Your task to perform on an android device: turn on the 12-hour format for clock Image 0: 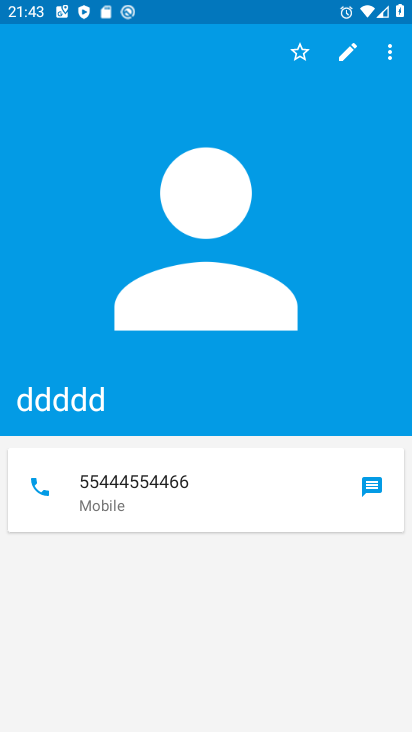
Step 0: press home button
Your task to perform on an android device: turn on the 12-hour format for clock Image 1: 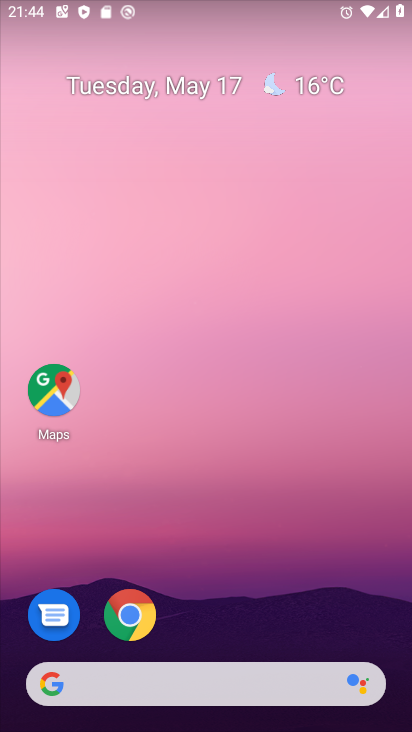
Step 1: drag from (247, 600) to (236, 23)
Your task to perform on an android device: turn on the 12-hour format for clock Image 2: 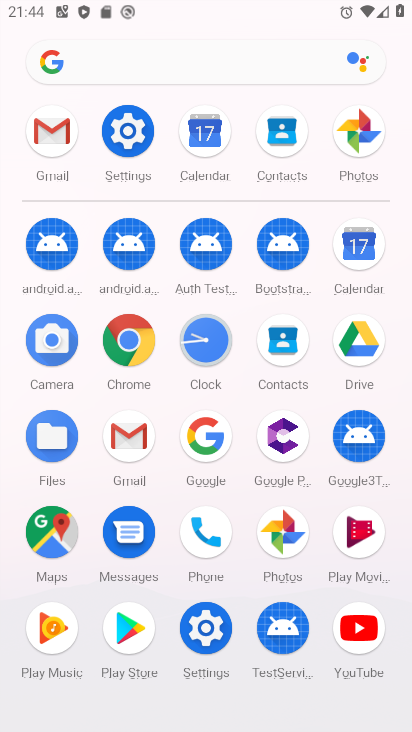
Step 2: click (216, 361)
Your task to perform on an android device: turn on the 12-hour format for clock Image 3: 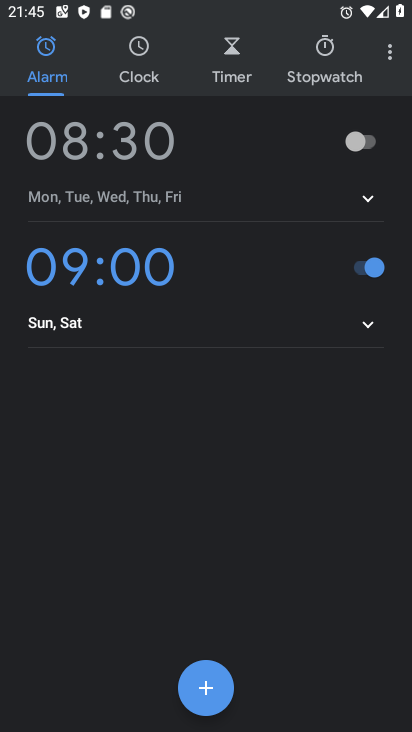
Step 3: click (388, 45)
Your task to perform on an android device: turn on the 12-hour format for clock Image 4: 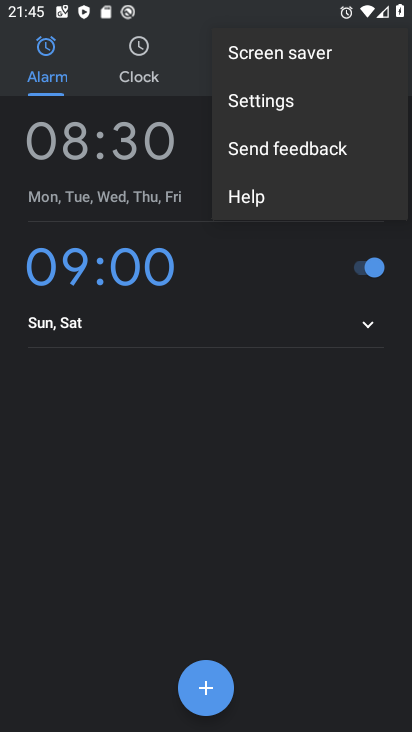
Step 4: click (257, 88)
Your task to perform on an android device: turn on the 12-hour format for clock Image 5: 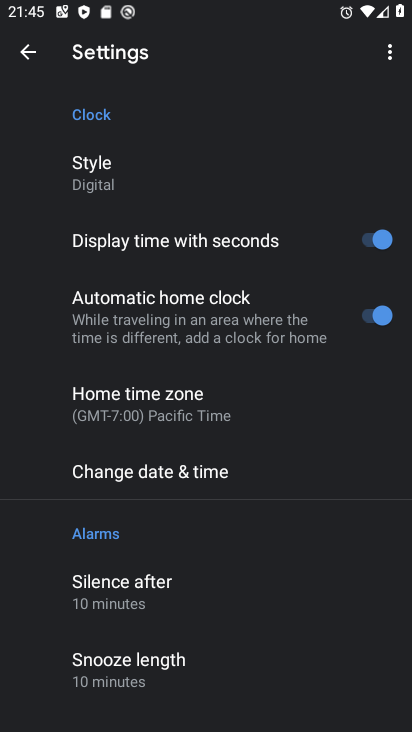
Step 5: click (212, 472)
Your task to perform on an android device: turn on the 12-hour format for clock Image 6: 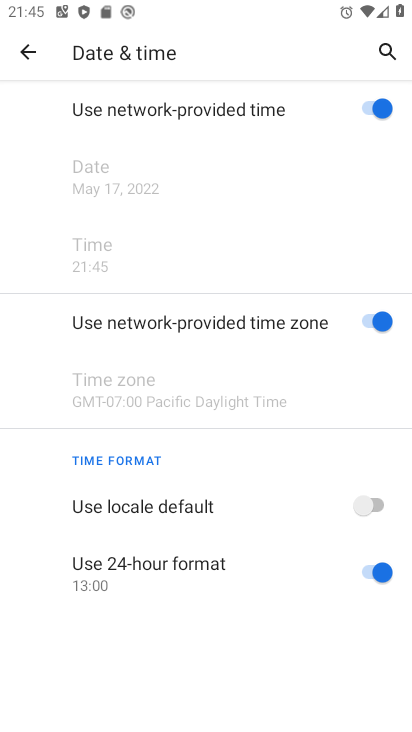
Step 6: click (365, 571)
Your task to perform on an android device: turn on the 12-hour format for clock Image 7: 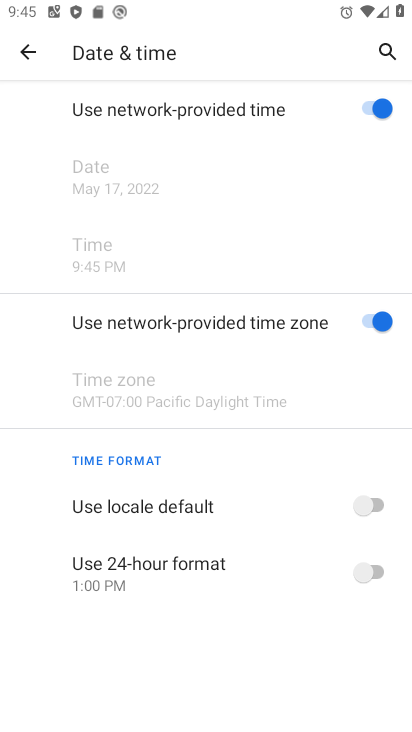
Step 7: task complete